Your task to perform on an android device: Go to Android settings Image 0: 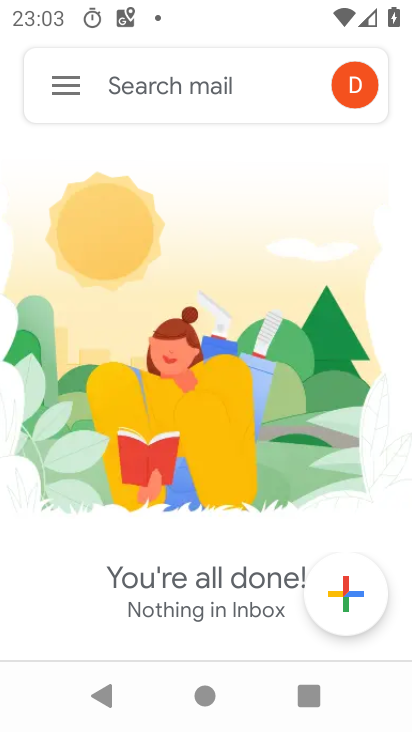
Step 0: press home button
Your task to perform on an android device: Go to Android settings Image 1: 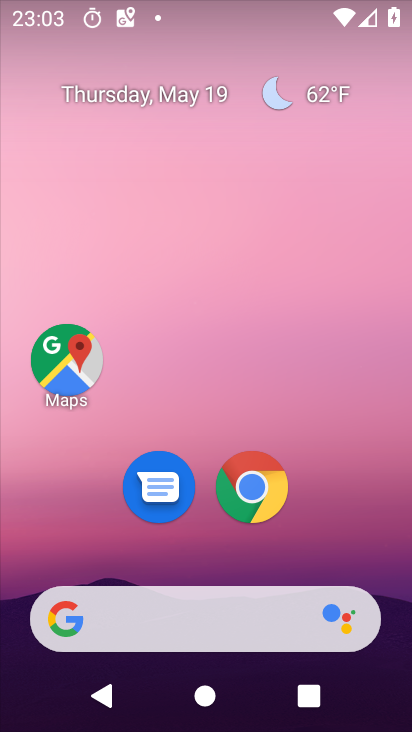
Step 1: drag from (321, 548) to (208, 109)
Your task to perform on an android device: Go to Android settings Image 2: 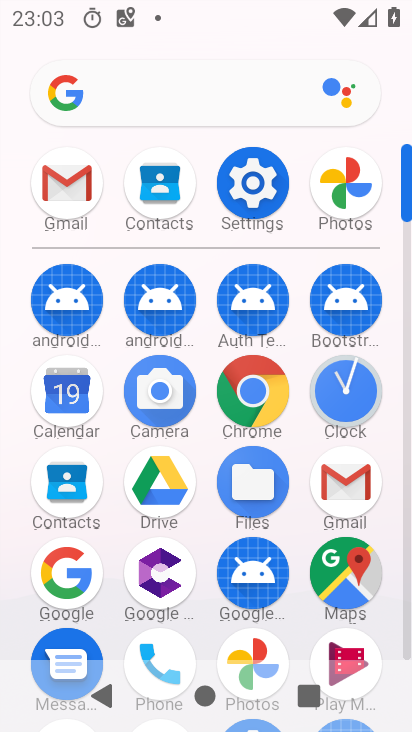
Step 2: click (251, 190)
Your task to perform on an android device: Go to Android settings Image 3: 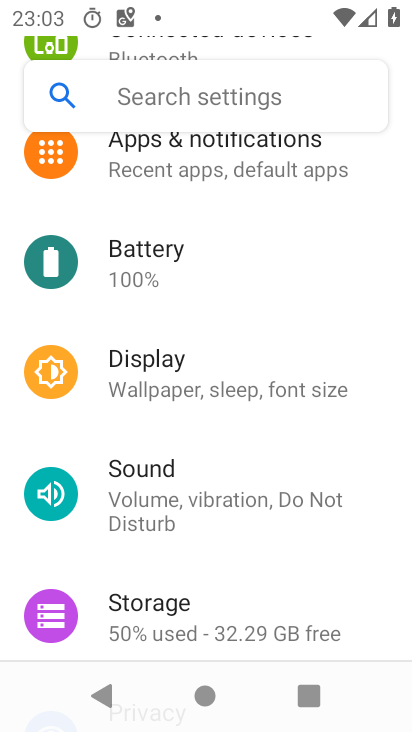
Step 3: drag from (299, 558) to (296, 173)
Your task to perform on an android device: Go to Android settings Image 4: 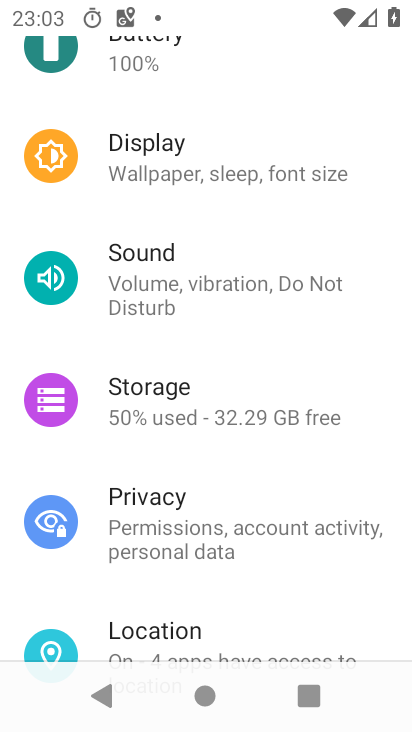
Step 4: drag from (293, 597) to (278, 195)
Your task to perform on an android device: Go to Android settings Image 5: 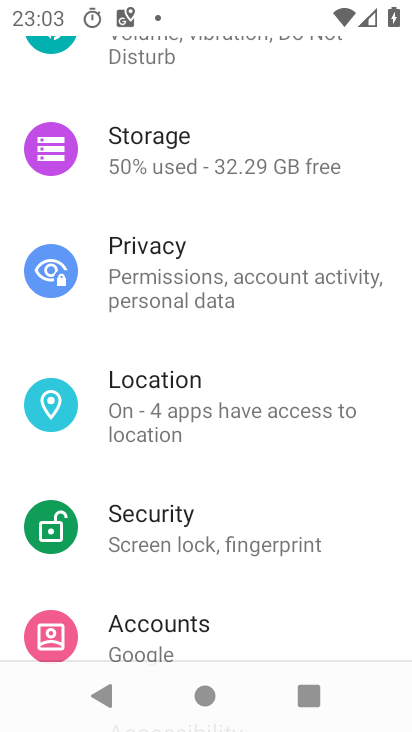
Step 5: drag from (273, 615) to (304, 111)
Your task to perform on an android device: Go to Android settings Image 6: 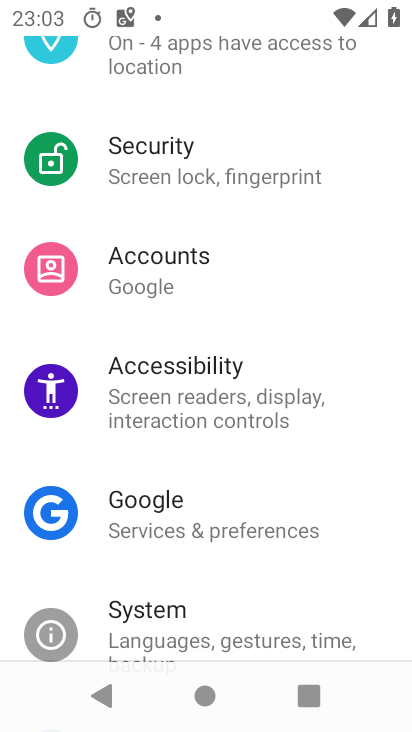
Step 6: drag from (258, 612) to (277, 196)
Your task to perform on an android device: Go to Android settings Image 7: 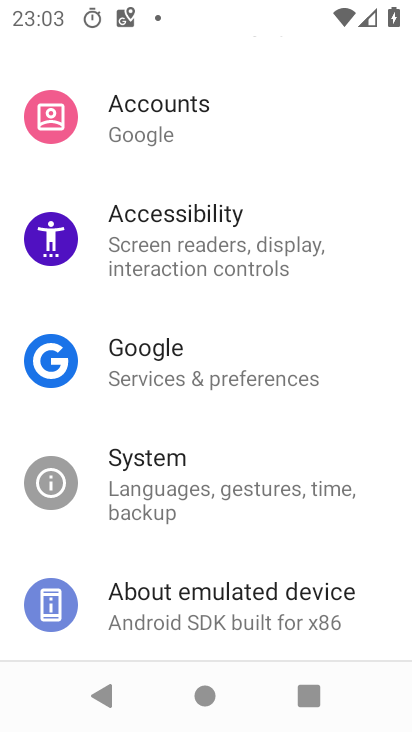
Step 7: click (224, 601)
Your task to perform on an android device: Go to Android settings Image 8: 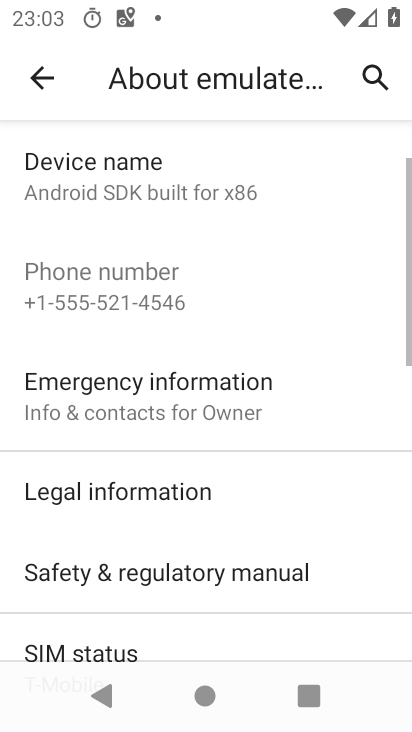
Step 8: drag from (300, 633) to (355, 251)
Your task to perform on an android device: Go to Android settings Image 9: 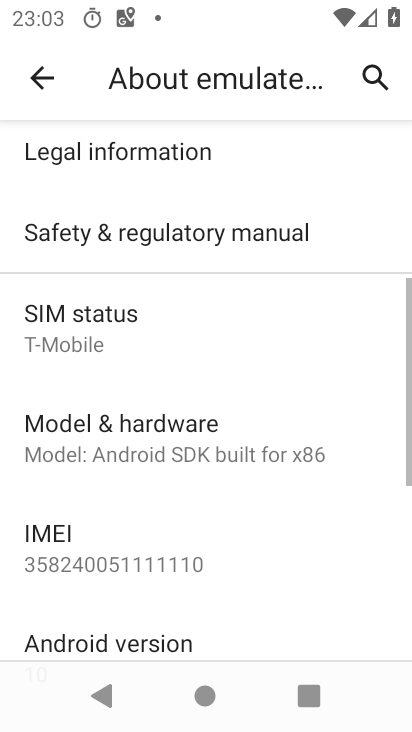
Step 9: drag from (257, 582) to (295, 272)
Your task to perform on an android device: Go to Android settings Image 10: 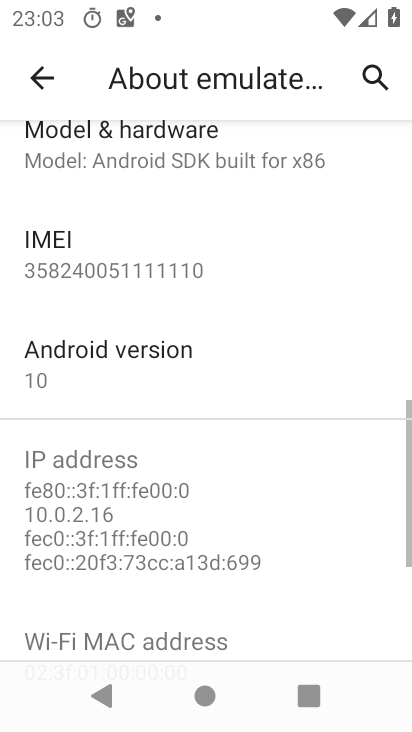
Step 10: click (202, 367)
Your task to perform on an android device: Go to Android settings Image 11: 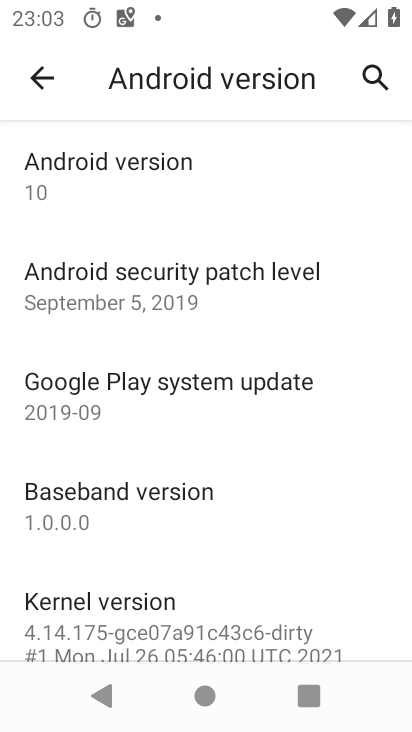
Step 11: task complete